Your task to perform on an android device: toggle data saver in the chrome app Image 0: 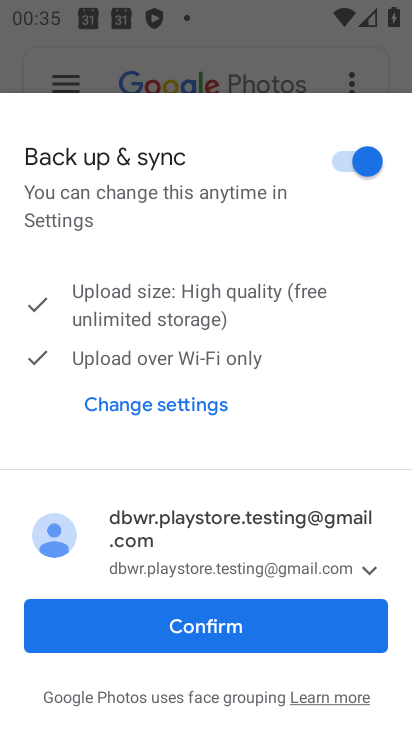
Step 0: press back button
Your task to perform on an android device: toggle data saver in the chrome app Image 1: 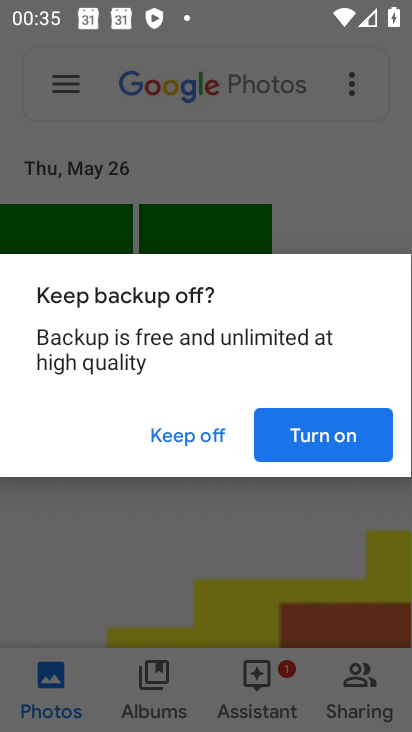
Step 1: press home button
Your task to perform on an android device: toggle data saver in the chrome app Image 2: 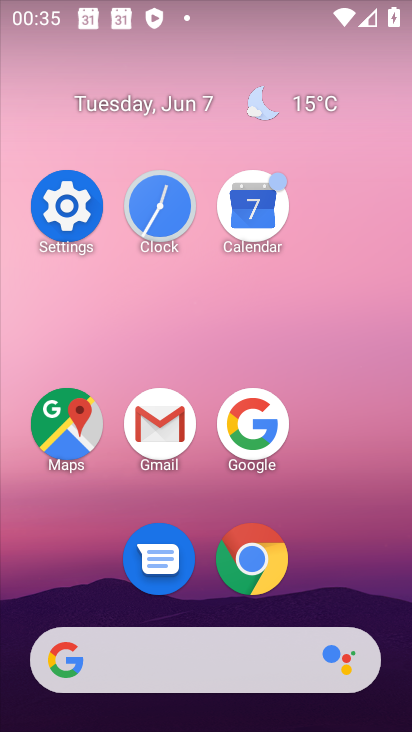
Step 2: click (258, 555)
Your task to perform on an android device: toggle data saver in the chrome app Image 3: 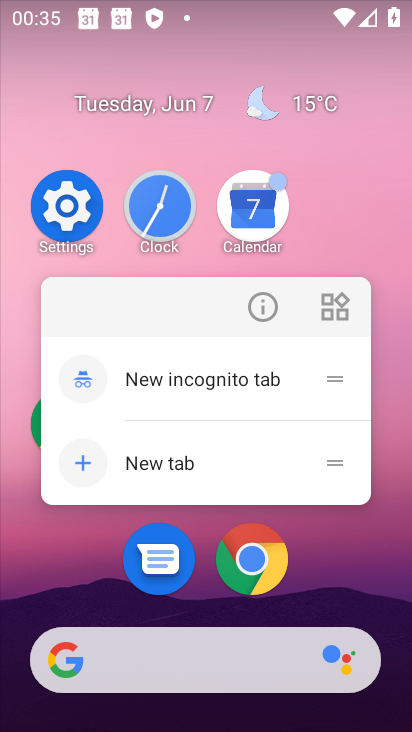
Step 3: click (257, 554)
Your task to perform on an android device: toggle data saver in the chrome app Image 4: 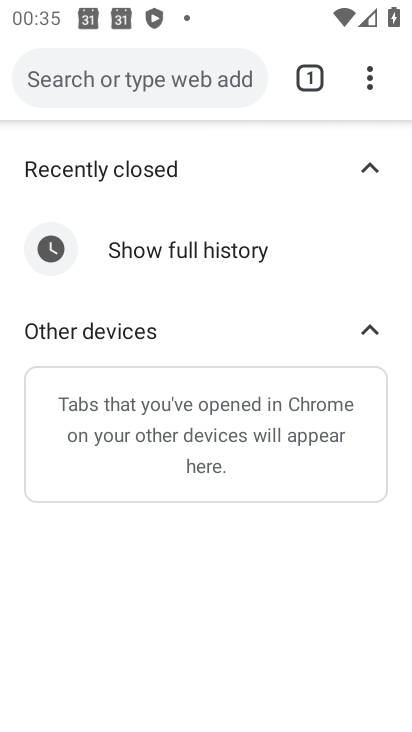
Step 4: click (381, 70)
Your task to perform on an android device: toggle data saver in the chrome app Image 5: 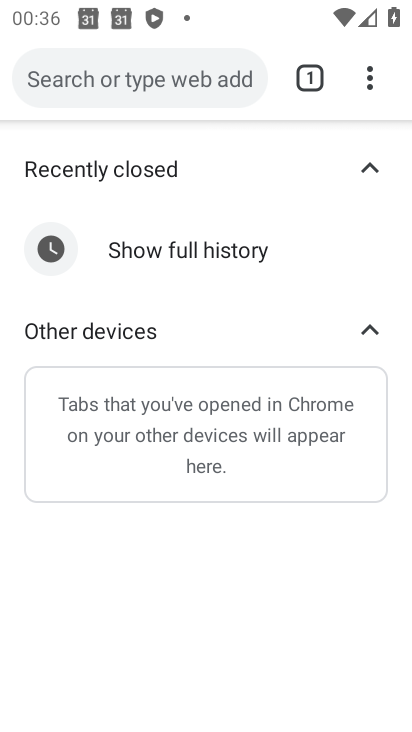
Step 5: click (374, 74)
Your task to perform on an android device: toggle data saver in the chrome app Image 6: 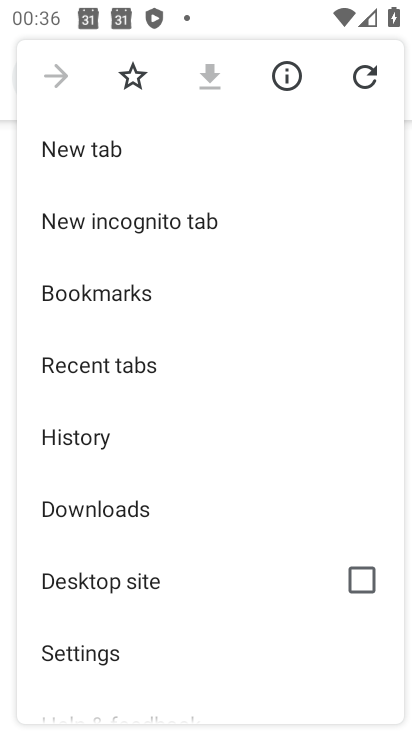
Step 6: drag from (223, 594) to (252, 202)
Your task to perform on an android device: toggle data saver in the chrome app Image 7: 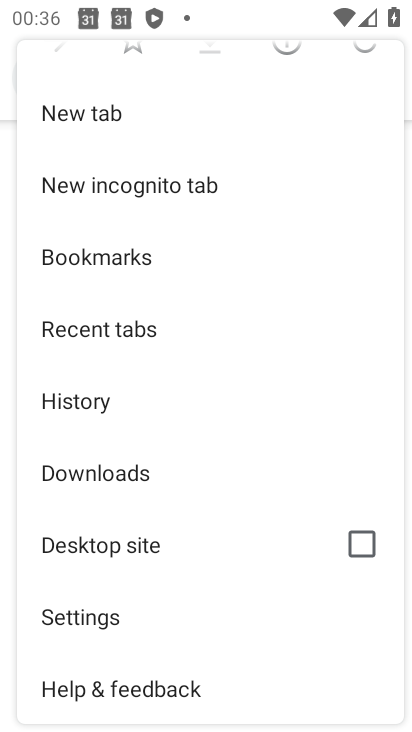
Step 7: click (152, 618)
Your task to perform on an android device: toggle data saver in the chrome app Image 8: 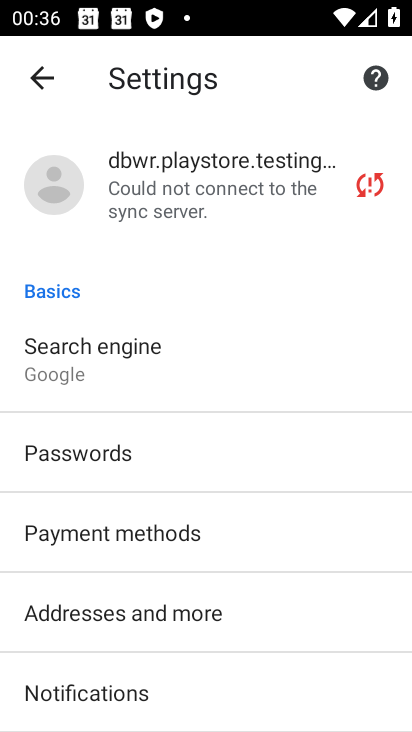
Step 8: drag from (152, 618) to (171, 277)
Your task to perform on an android device: toggle data saver in the chrome app Image 9: 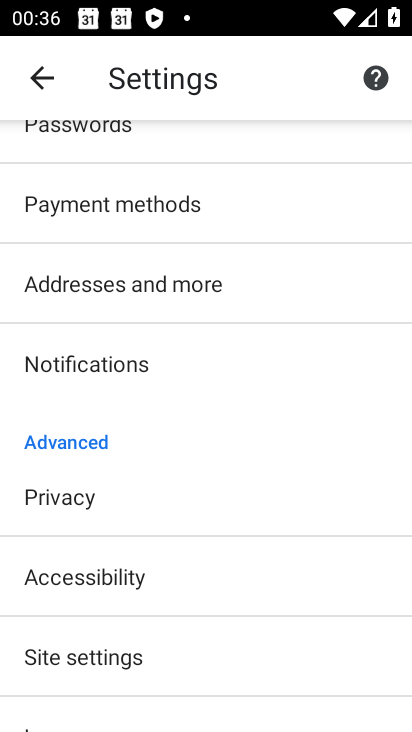
Step 9: drag from (178, 606) to (184, 257)
Your task to perform on an android device: toggle data saver in the chrome app Image 10: 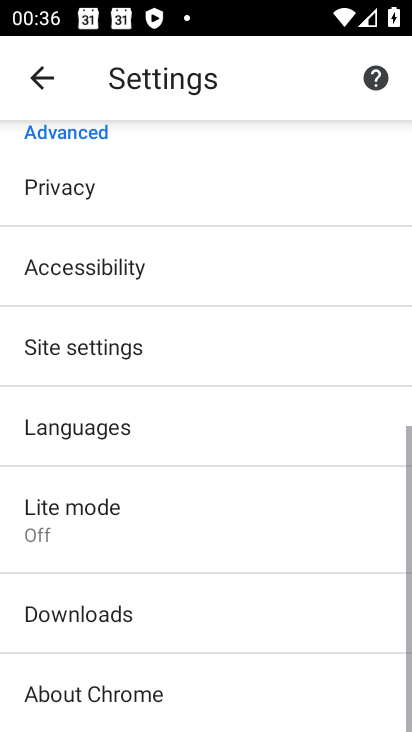
Step 10: click (148, 530)
Your task to perform on an android device: toggle data saver in the chrome app Image 11: 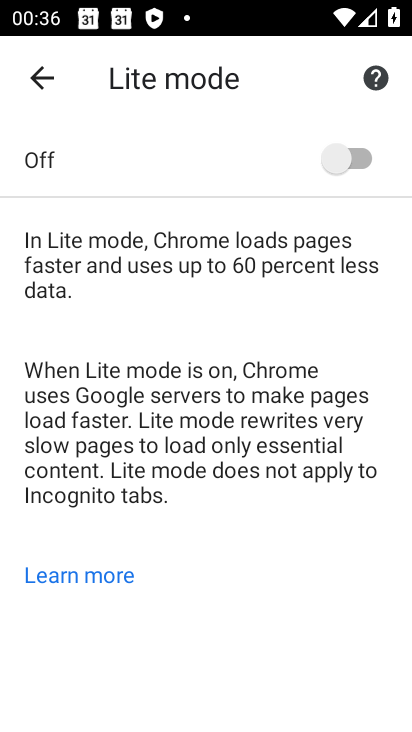
Step 11: click (363, 175)
Your task to perform on an android device: toggle data saver in the chrome app Image 12: 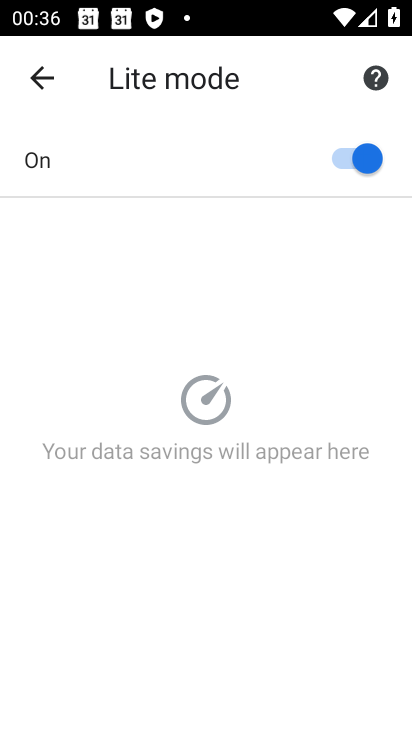
Step 12: task complete